Your task to perform on an android device: add a label to a message in the gmail app Image 0: 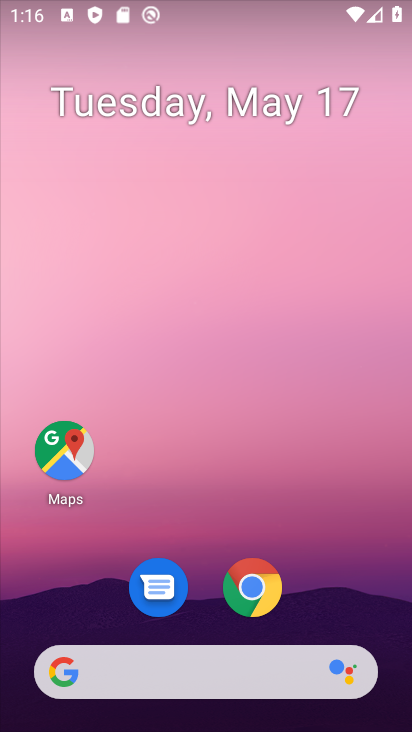
Step 0: drag from (196, 634) to (303, 22)
Your task to perform on an android device: add a label to a message in the gmail app Image 1: 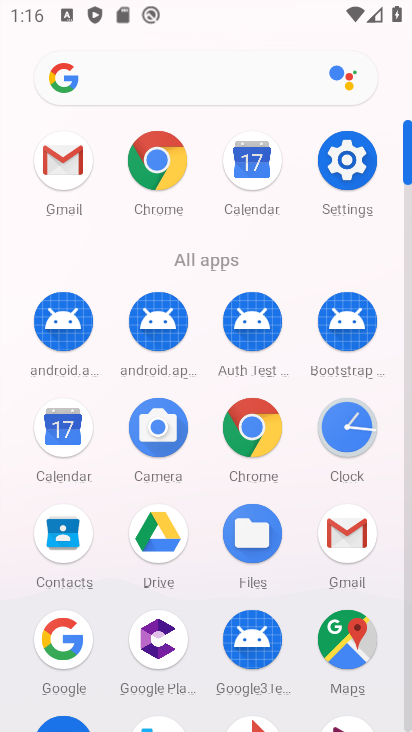
Step 1: click (345, 534)
Your task to perform on an android device: add a label to a message in the gmail app Image 2: 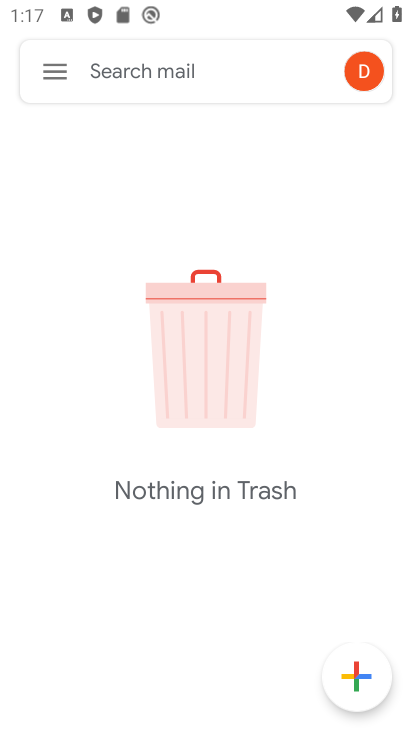
Step 2: click (44, 66)
Your task to perform on an android device: add a label to a message in the gmail app Image 3: 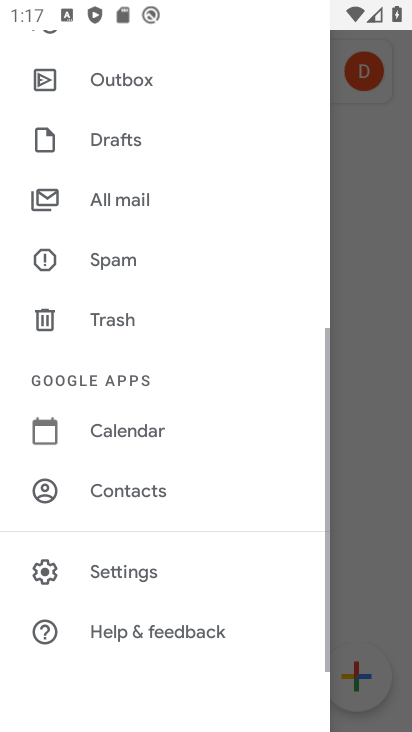
Step 3: drag from (151, 108) to (95, 666)
Your task to perform on an android device: add a label to a message in the gmail app Image 4: 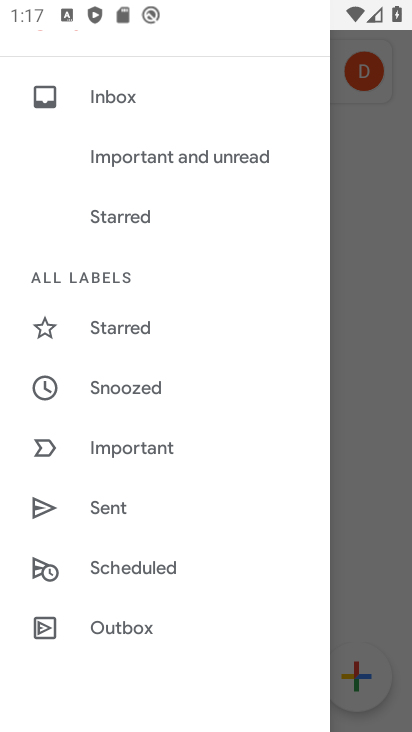
Step 4: drag from (129, 648) to (193, 237)
Your task to perform on an android device: add a label to a message in the gmail app Image 5: 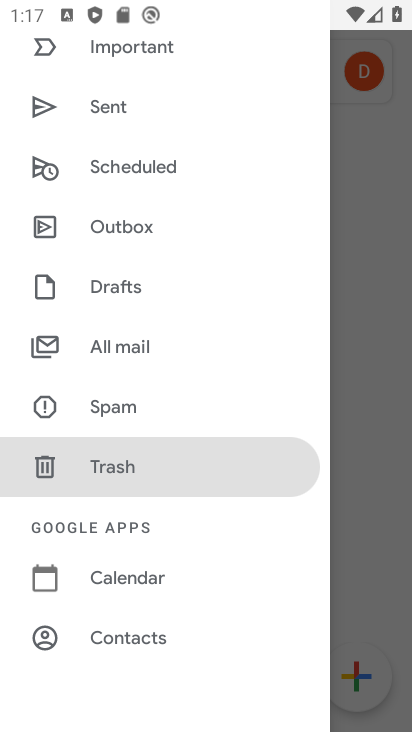
Step 5: drag from (144, 636) to (201, 341)
Your task to perform on an android device: add a label to a message in the gmail app Image 6: 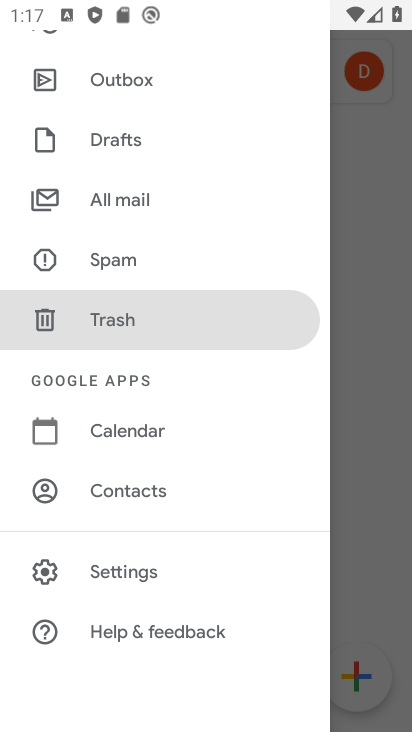
Step 6: click (131, 584)
Your task to perform on an android device: add a label to a message in the gmail app Image 7: 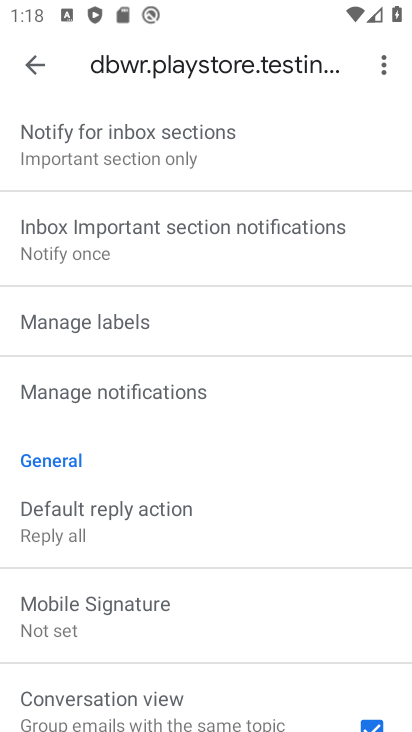
Step 7: task complete